Your task to perform on an android device: open a new tab in the chrome app Image 0: 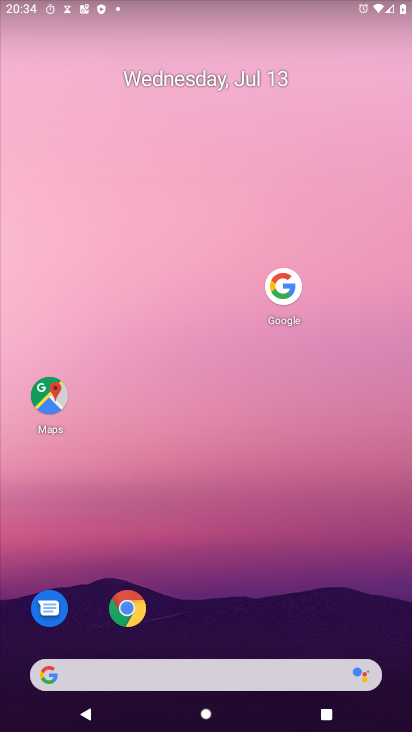
Step 0: drag from (209, 629) to (216, 127)
Your task to perform on an android device: open a new tab in the chrome app Image 1: 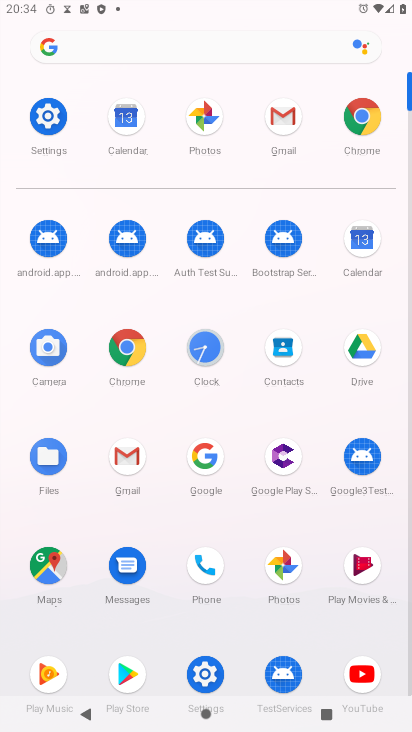
Step 1: click (124, 357)
Your task to perform on an android device: open a new tab in the chrome app Image 2: 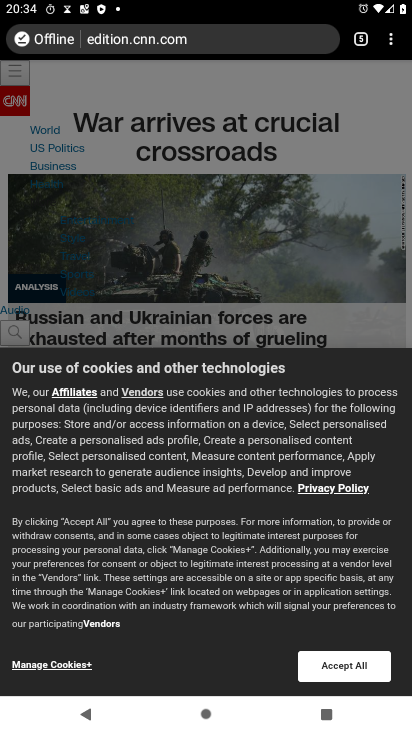
Step 2: click (362, 35)
Your task to perform on an android device: open a new tab in the chrome app Image 3: 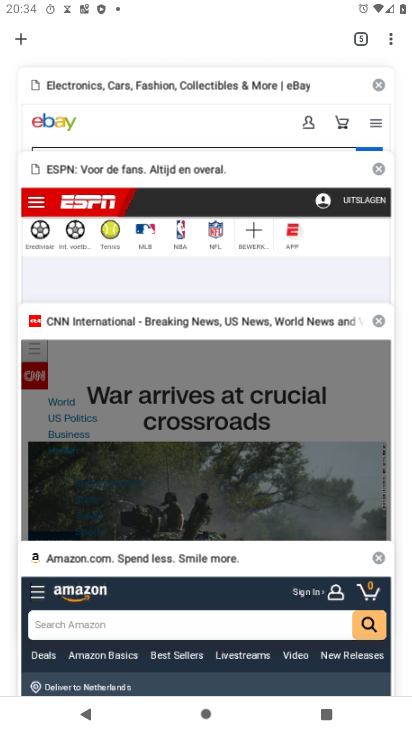
Step 3: click (23, 32)
Your task to perform on an android device: open a new tab in the chrome app Image 4: 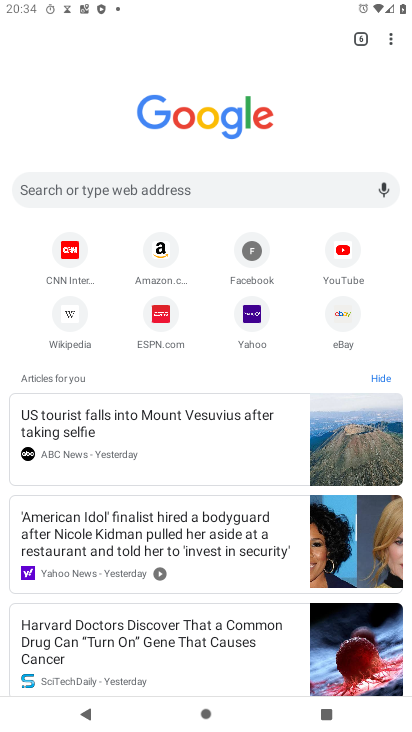
Step 4: task complete